Your task to perform on an android device: Open notification settings Image 0: 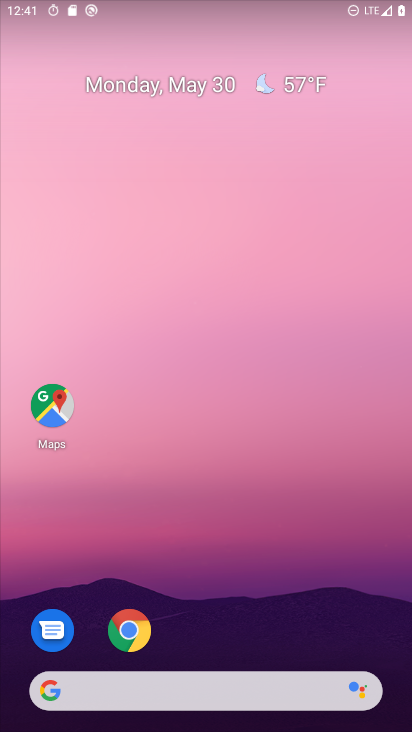
Step 0: press home button
Your task to perform on an android device: Open notification settings Image 1: 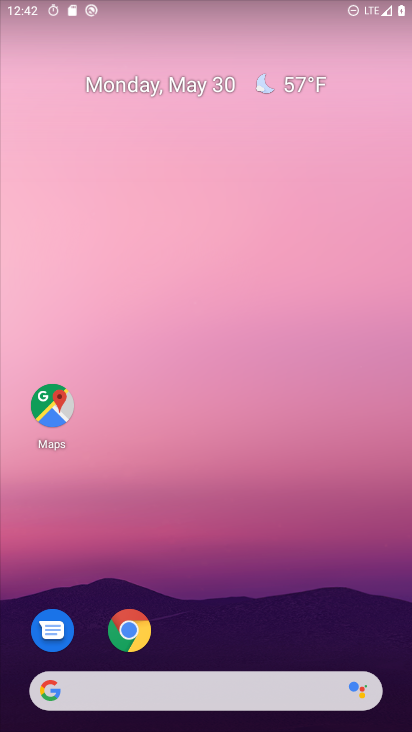
Step 1: drag from (172, 693) to (239, 95)
Your task to perform on an android device: Open notification settings Image 2: 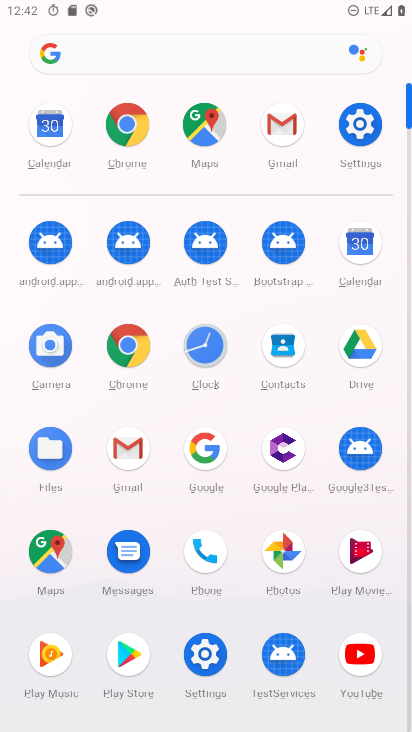
Step 2: click (353, 131)
Your task to perform on an android device: Open notification settings Image 3: 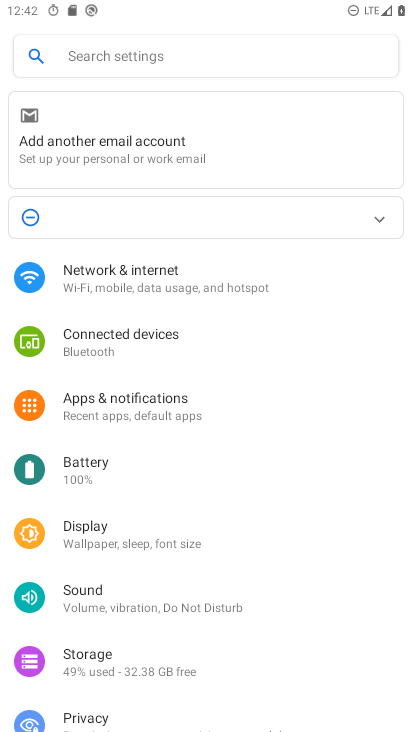
Step 3: click (153, 58)
Your task to perform on an android device: Open notification settings Image 4: 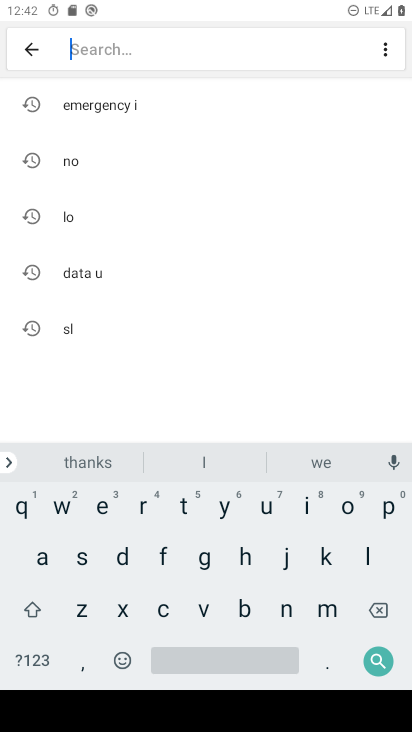
Step 4: click (82, 160)
Your task to perform on an android device: Open notification settings Image 5: 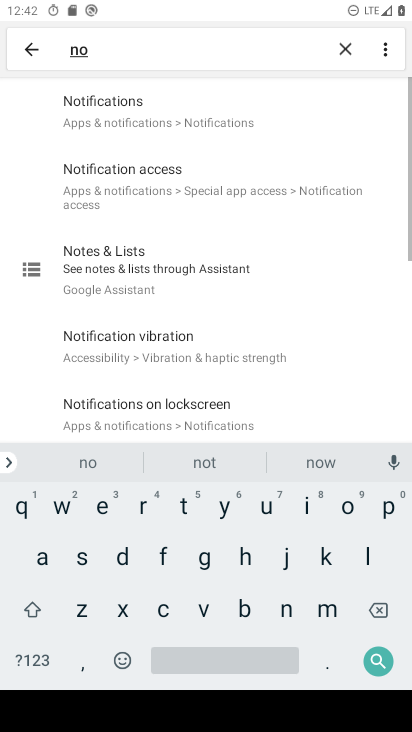
Step 5: click (159, 129)
Your task to perform on an android device: Open notification settings Image 6: 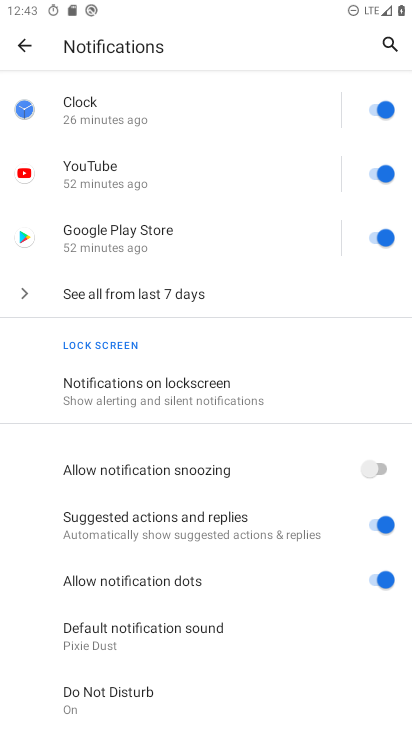
Step 6: click (165, 399)
Your task to perform on an android device: Open notification settings Image 7: 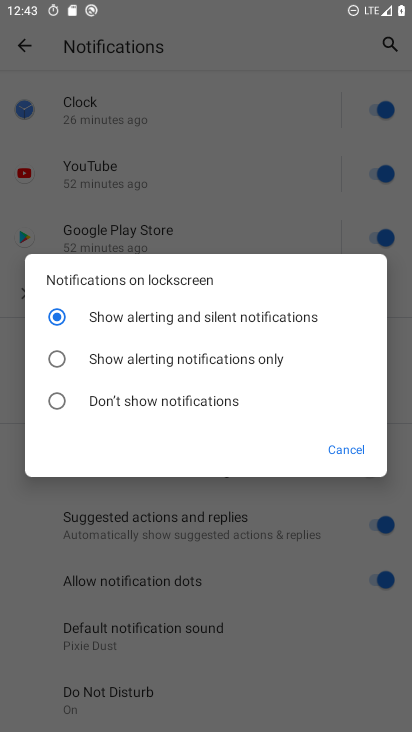
Step 7: task complete